Your task to perform on an android device: Show me productivity apps on the Play Store Image 0: 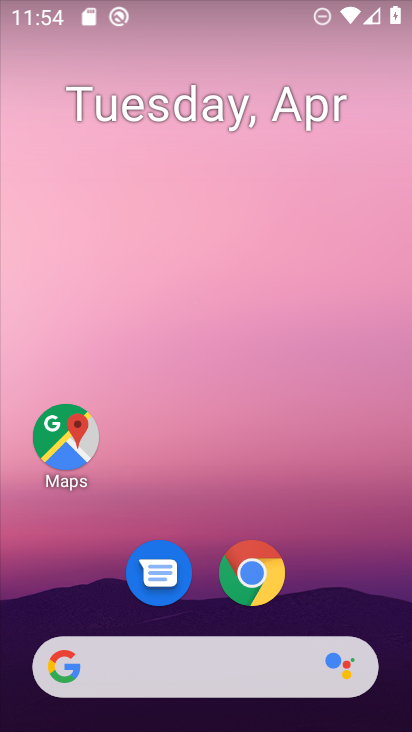
Step 0: drag from (354, 573) to (289, 188)
Your task to perform on an android device: Show me productivity apps on the Play Store Image 1: 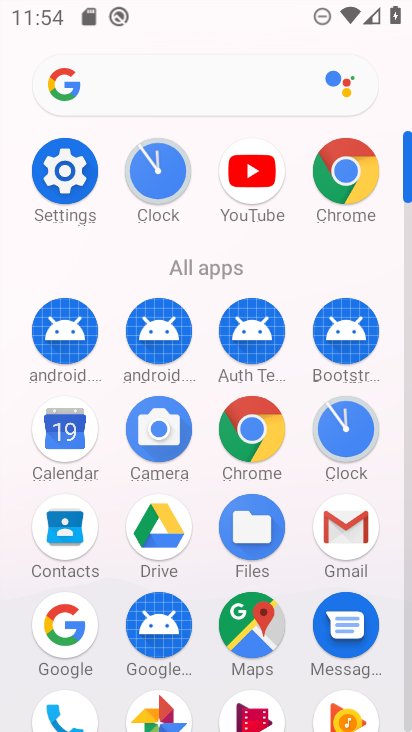
Step 1: click (408, 715)
Your task to perform on an android device: Show me productivity apps on the Play Store Image 2: 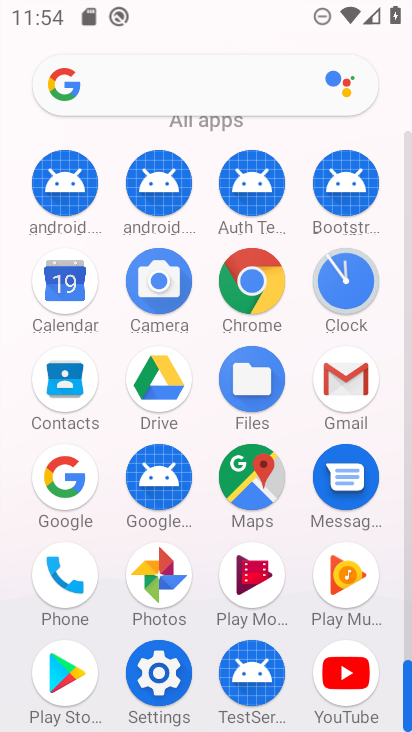
Step 2: click (68, 675)
Your task to perform on an android device: Show me productivity apps on the Play Store Image 3: 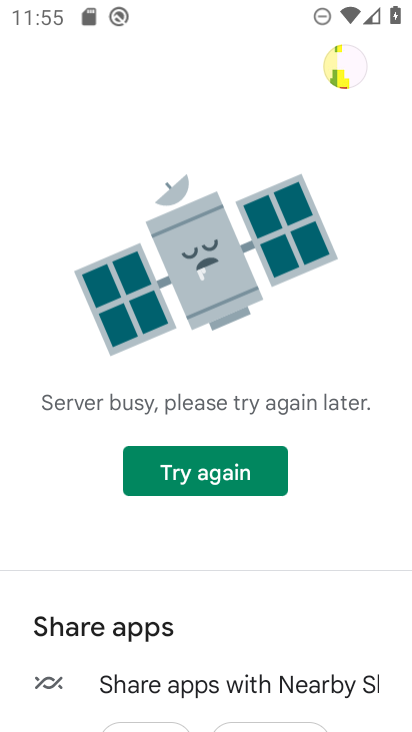
Step 3: task complete